Your task to perform on an android device: Go to notification settings Image 0: 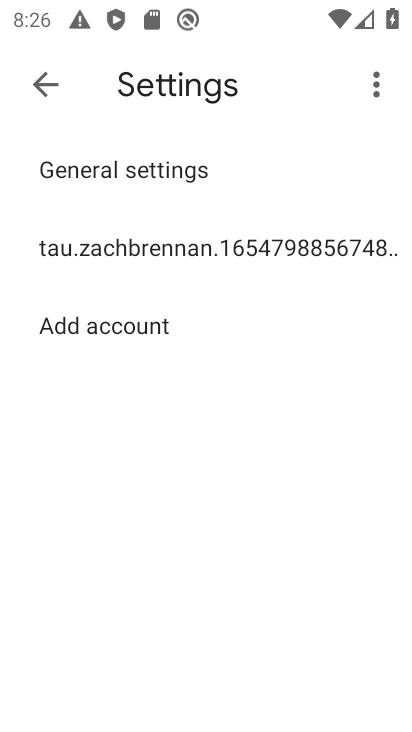
Step 0: press home button
Your task to perform on an android device: Go to notification settings Image 1: 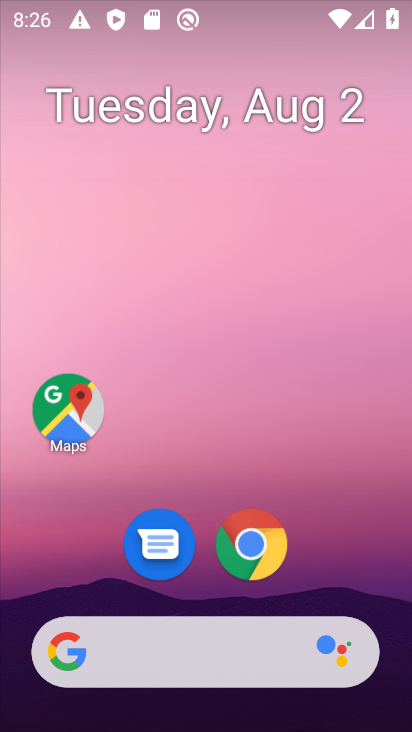
Step 1: drag from (205, 657) to (354, 22)
Your task to perform on an android device: Go to notification settings Image 2: 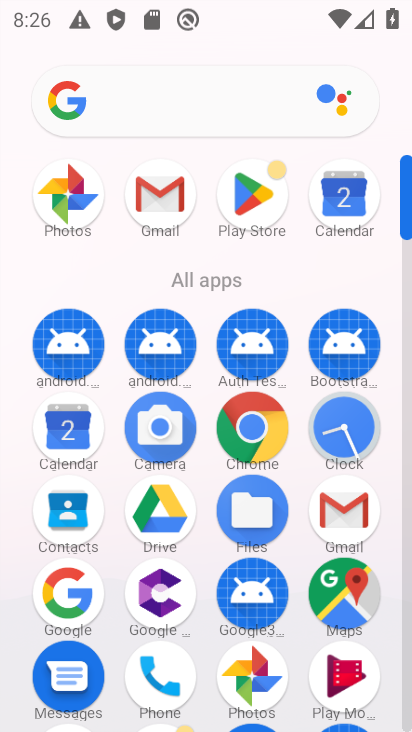
Step 2: drag from (214, 608) to (330, 260)
Your task to perform on an android device: Go to notification settings Image 3: 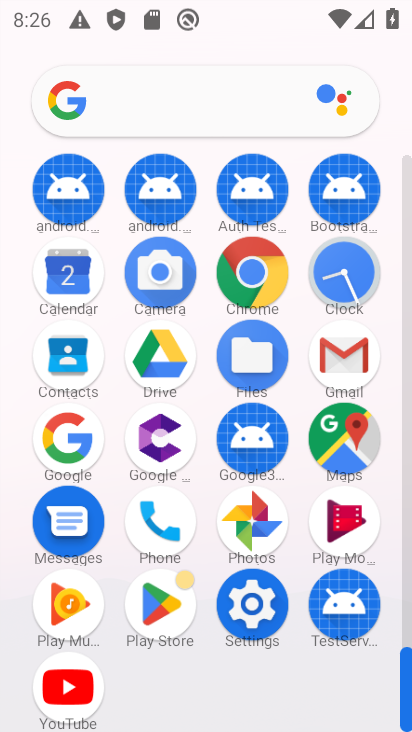
Step 3: drag from (260, 601) to (255, 384)
Your task to perform on an android device: Go to notification settings Image 4: 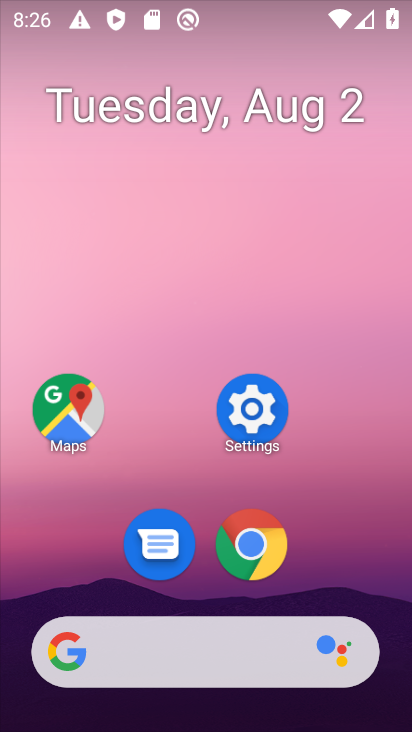
Step 4: click (258, 408)
Your task to perform on an android device: Go to notification settings Image 5: 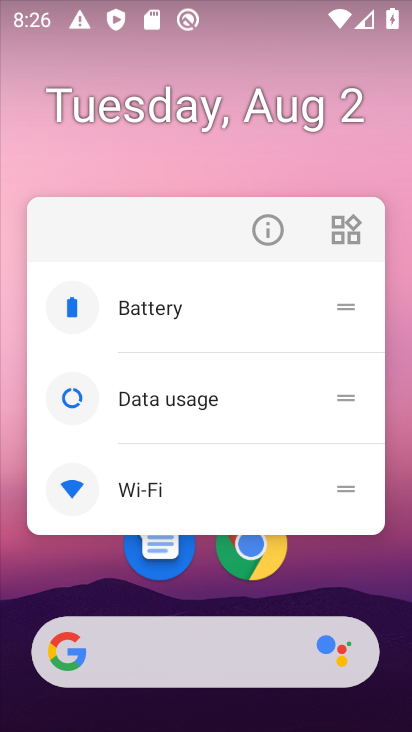
Step 5: click (398, 438)
Your task to perform on an android device: Go to notification settings Image 6: 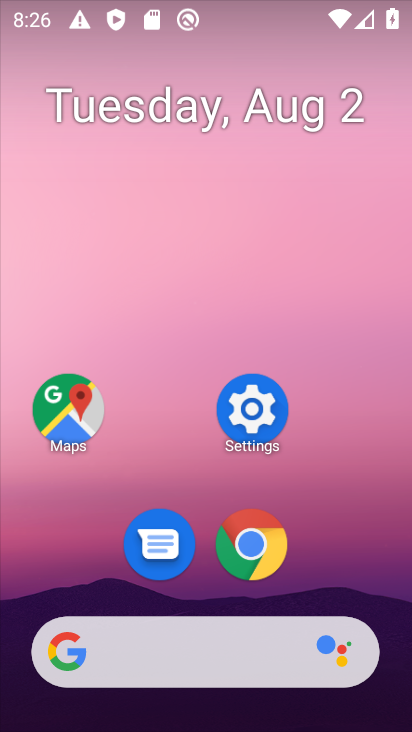
Step 6: click (257, 412)
Your task to perform on an android device: Go to notification settings Image 7: 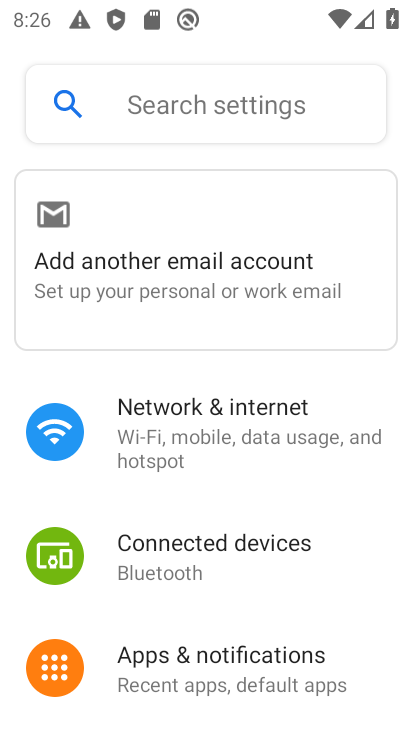
Step 7: drag from (242, 590) to (319, 259)
Your task to perform on an android device: Go to notification settings Image 8: 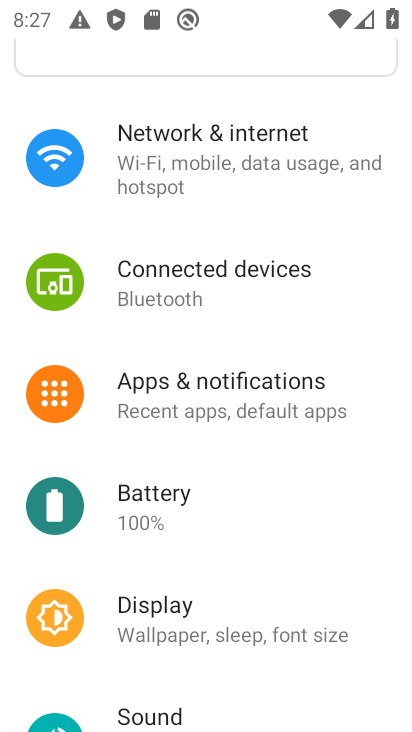
Step 8: click (270, 383)
Your task to perform on an android device: Go to notification settings Image 9: 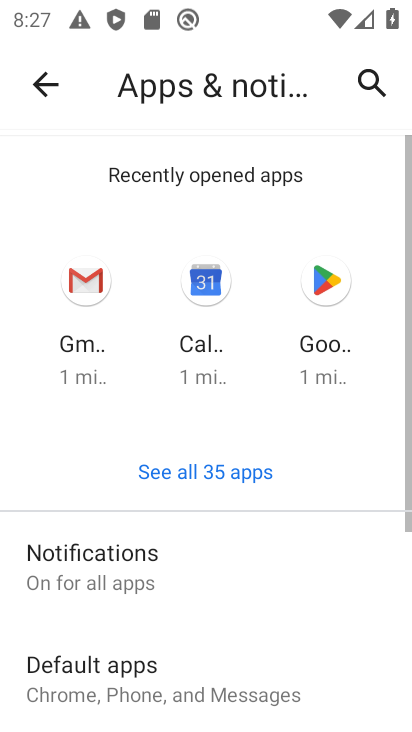
Step 9: click (119, 570)
Your task to perform on an android device: Go to notification settings Image 10: 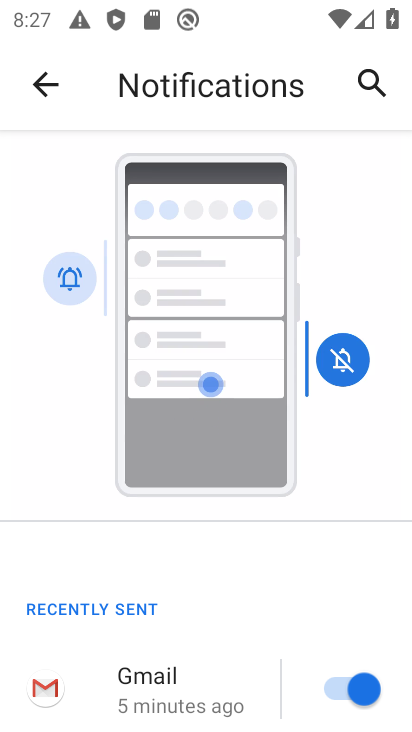
Step 10: task complete